Your task to perform on an android device: Search for pizza restaurants on Maps Image 0: 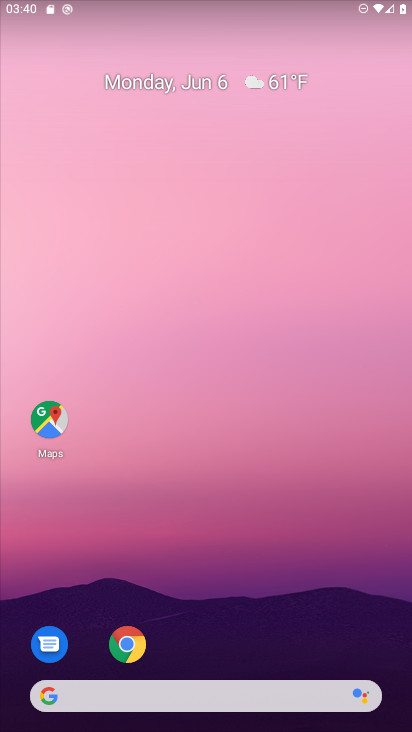
Step 0: drag from (234, 639) to (288, 2)
Your task to perform on an android device: Search for pizza restaurants on Maps Image 1: 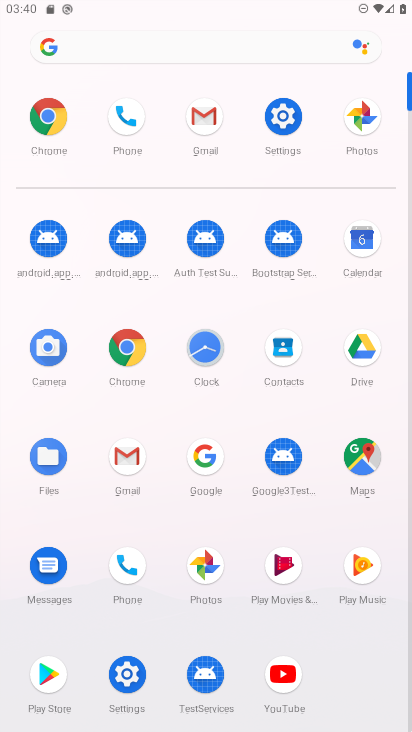
Step 1: click (358, 454)
Your task to perform on an android device: Search for pizza restaurants on Maps Image 2: 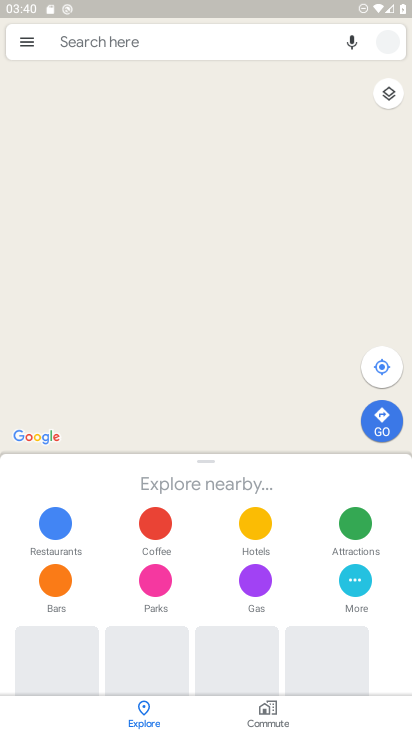
Step 2: click (161, 37)
Your task to perform on an android device: Search for pizza restaurants on Maps Image 3: 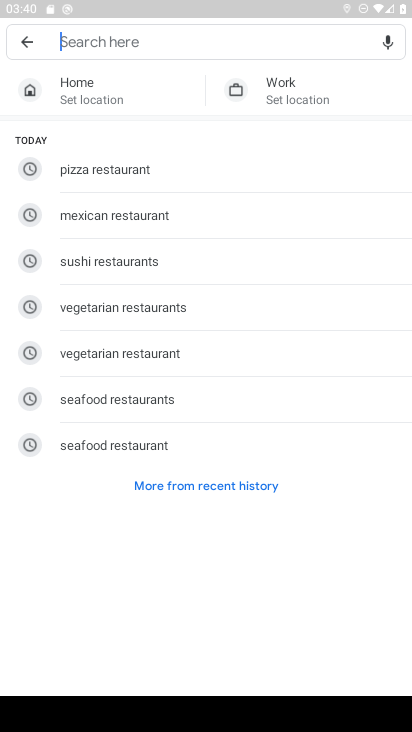
Step 3: type "Pizza restaurants"
Your task to perform on an android device: Search for pizza restaurants on Maps Image 4: 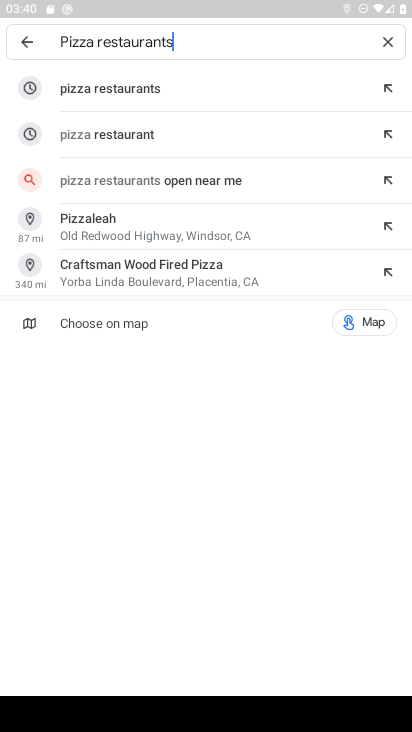
Step 4: click (128, 93)
Your task to perform on an android device: Search for pizza restaurants on Maps Image 5: 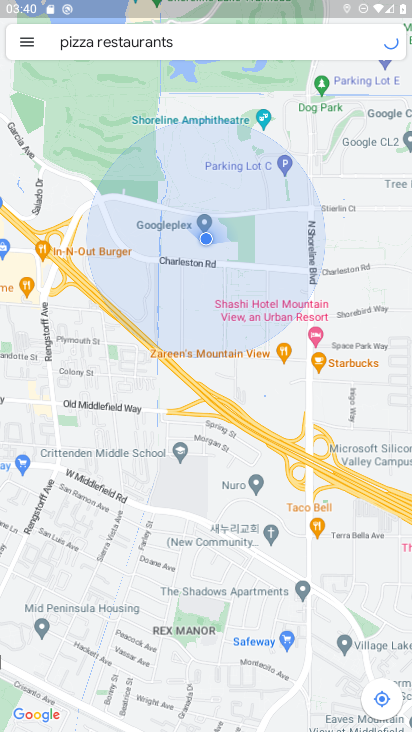
Step 5: task complete